Your task to perform on an android device: turn on the 24-hour format for clock Image 0: 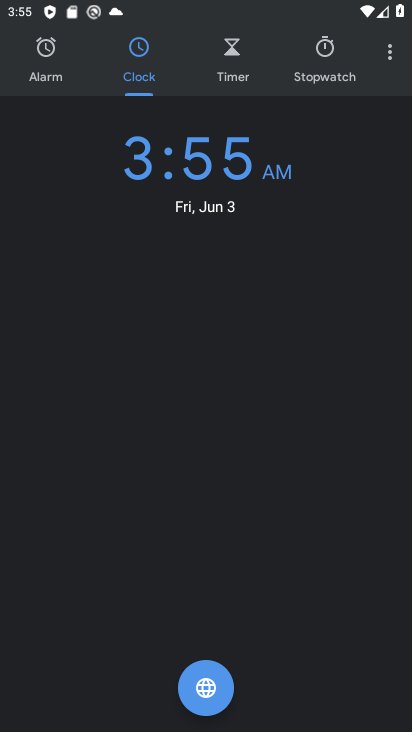
Step 0: press home button
Your task to perform on an android device: turn on the 24-hour format for clock Image 1: 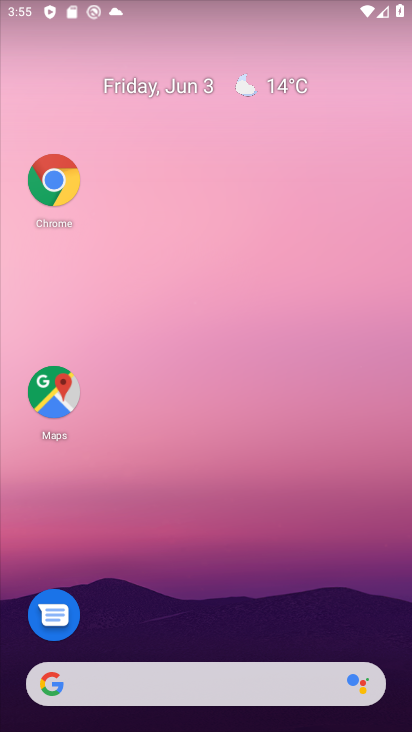
Step 1: drag from (141, 724) to (157, 53)
Your task to perform on an android device: turn on the 24-hour format for clock Image 2: 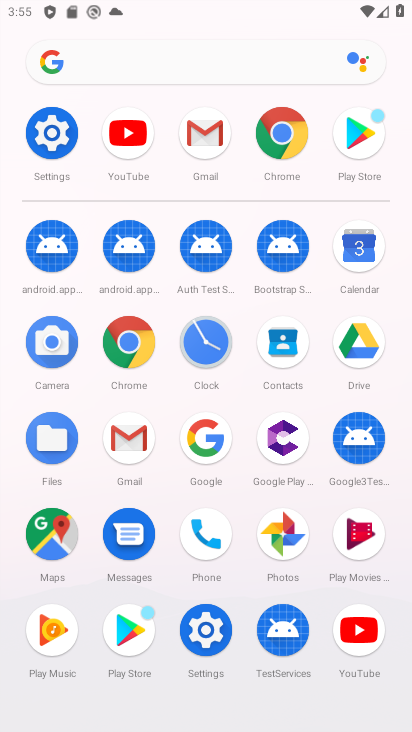
Step 2: click (203, 621)
Your task to perform on an android device: turn on the 24-hour format for clock Image 3: 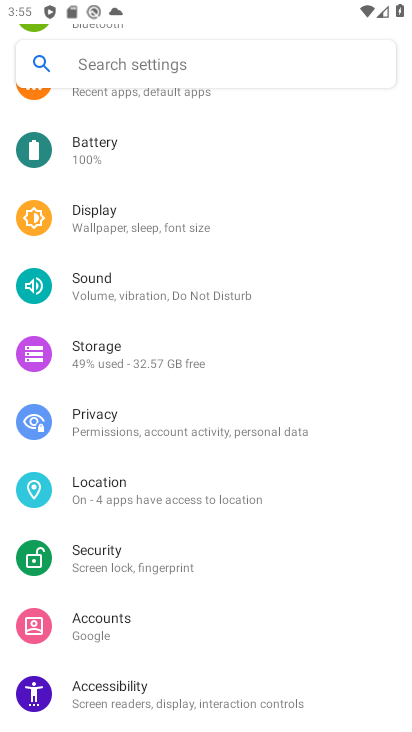
Step 3: drag from (201, 645) to (239, 160)
Your task to perform on an android device: turn on the 24-hour format for clock Image 4: 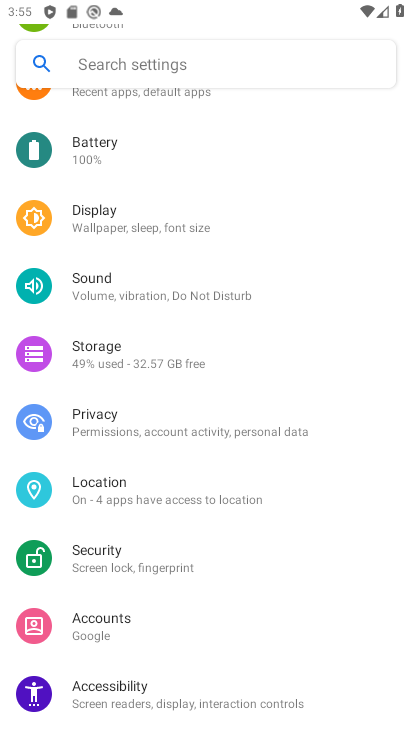
Step 4: drag from (330, 707) to (367, 162)
Your task to perform on an android device: turn on the 24-hour format for clock Image 5: 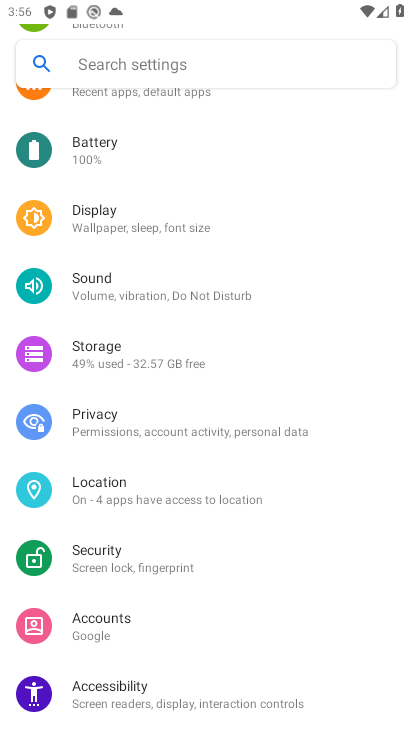
Step 5: drag from (316, 706) to (320, 60)
Your task to perform on an android device: turn on the 24-hour format for clock Image 6: 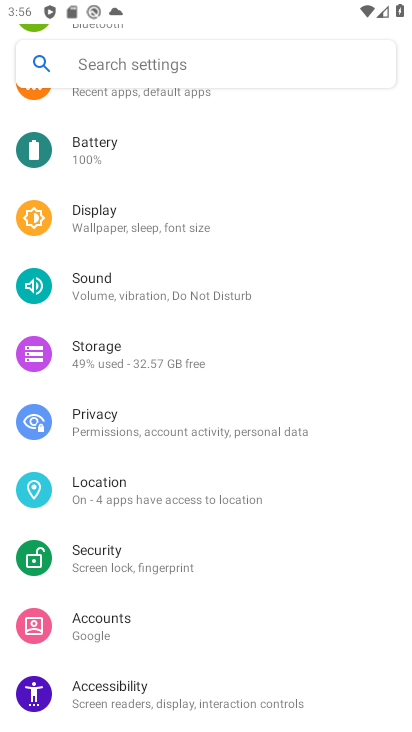
Step 6: drag from (319, 714) to (363, 192)
Your task to perform on an android device: turn on the 24-hour format for clock Image 7: 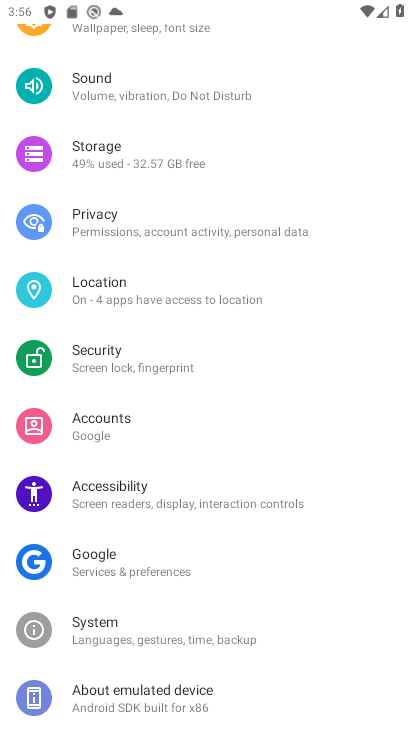
Step 7: click (121, 642)
Your task to perform on an android device: turn on the 24-hour format for clock Image 8: 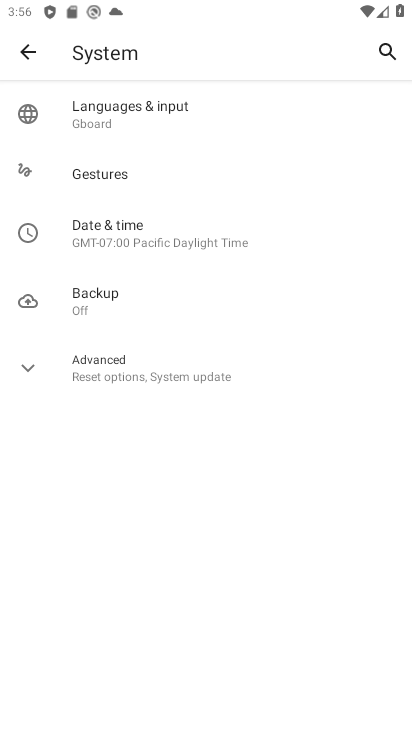
Step 8: click (126, 242)
Your task to perform on an android device: turn on the 24-hour format for clock Image 9: 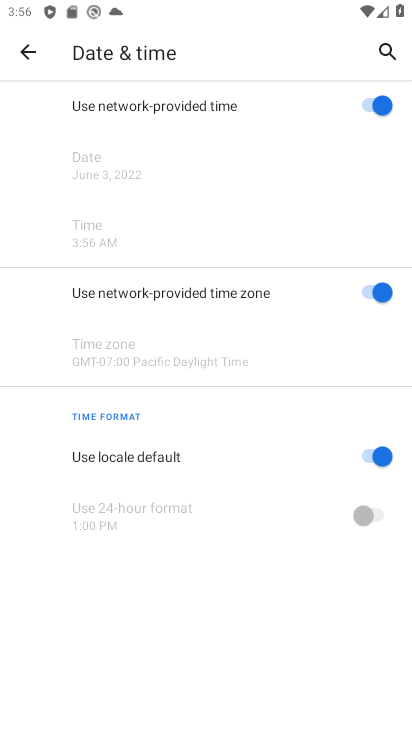
Step 9: click (388, 452)
Your task to perform on an android device: turn on the 24-hour format for clock Image 10: 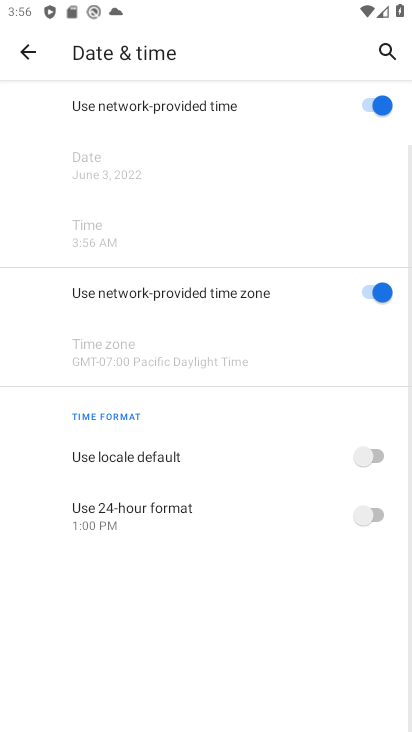
Step 10: click (373, 513)
Your task to perform on an android device: turn on the 24-hour format for clock Image 11: 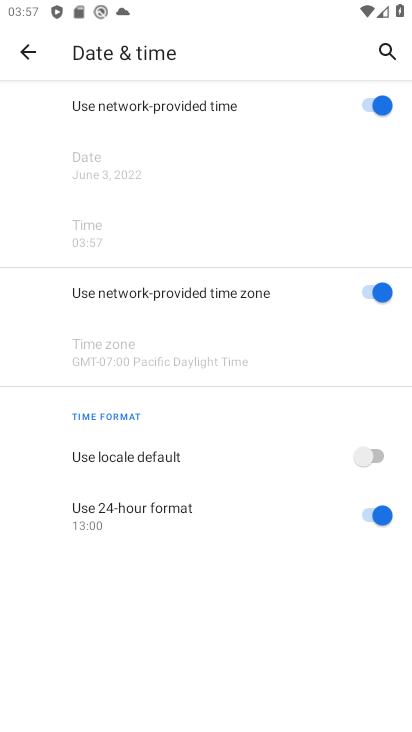
Step 11: task complete